Your task to perform on an android device: open a new tab in the chrome app Image 0: 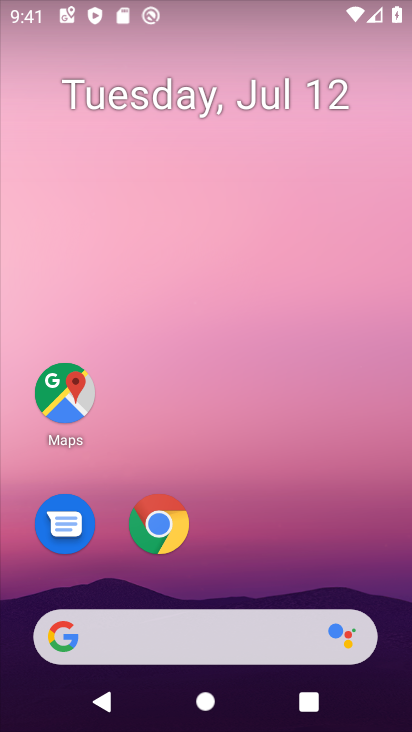
Step 0: drag from (286, 554) to (257, 127)
Your task to perform on an android device: open a new tab in the chrome app Image 1: 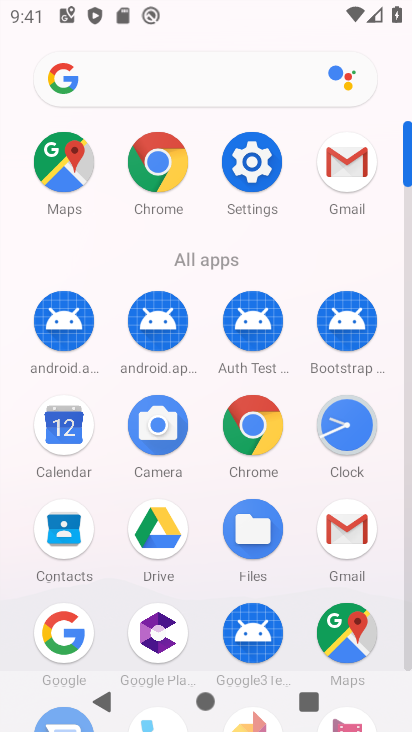
Step 1: click (155, 168)
Your task to perform on an android device: open a new tab in the chrome app Image 2: 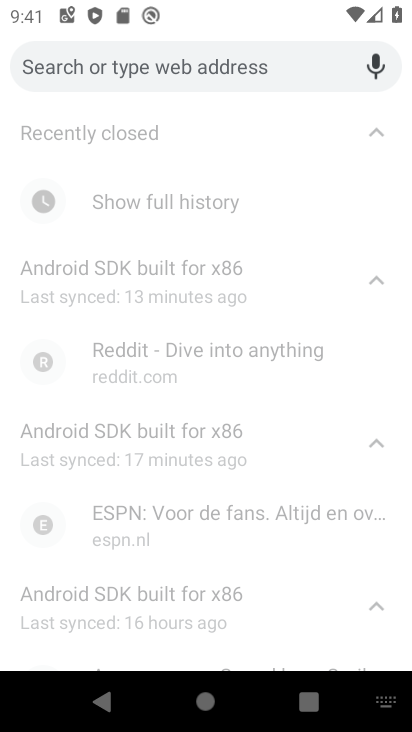
Step 2: press back button
Your task to perform on an android device: open a new tab in the chrome app Image 3: 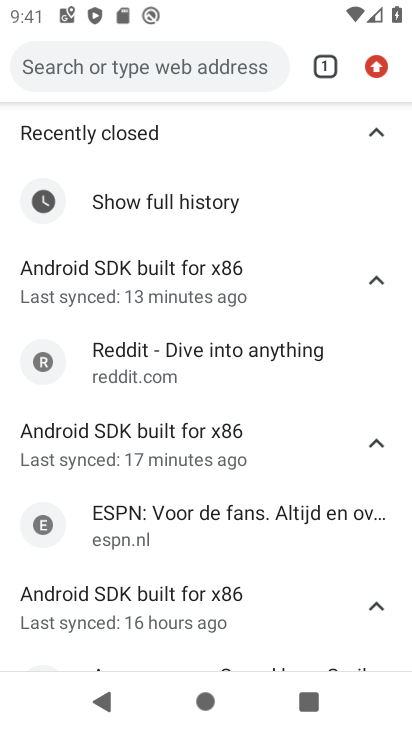
Step 3: click (375, 67)
Your task to perform on an android device: open a new tab in the chrome app Image 4: 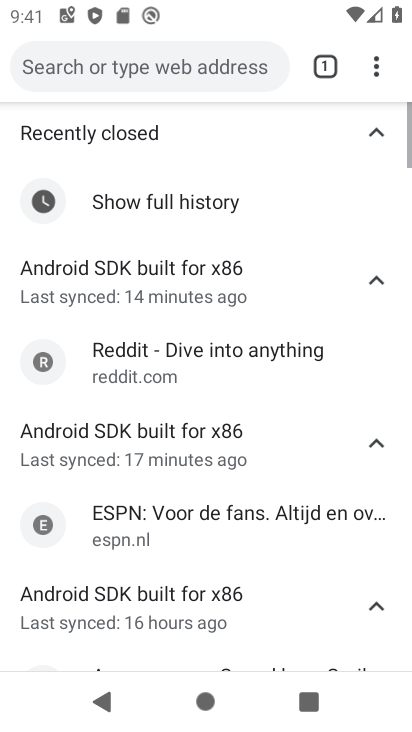
Step 4: click (375, 68)
Your task to perform on an android device: open a new tab in the chrome app Image 5: 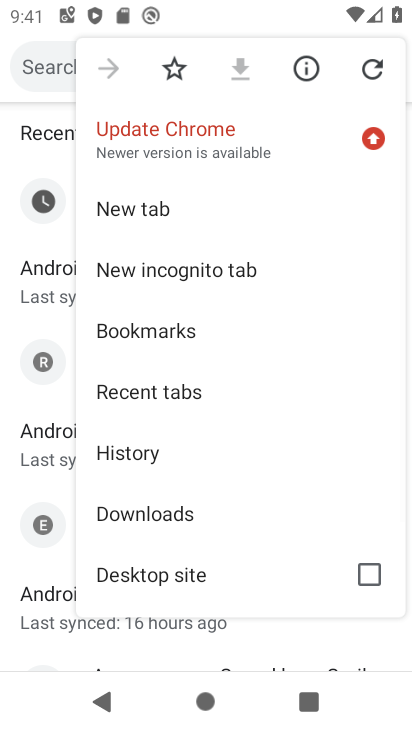
Step 5: click (210, 207)
Your task to perform on an android device: open a new tab in the chrome app Image 6: 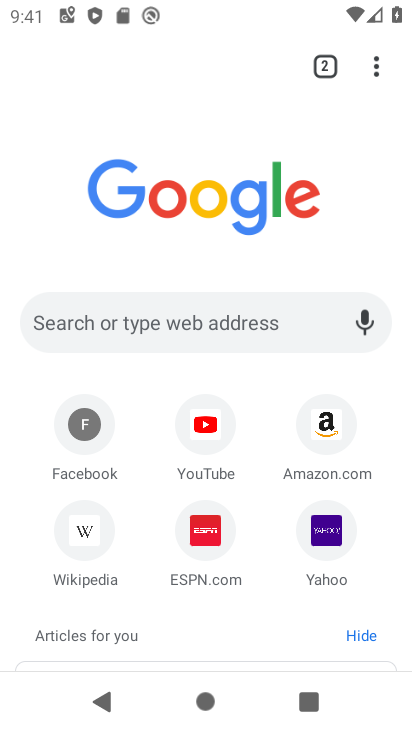
Step 6: task complete